Your task to perform on an android device: Add bose quietcomfort 35 to the cart on bestbuy, then select checkout. Image 0: 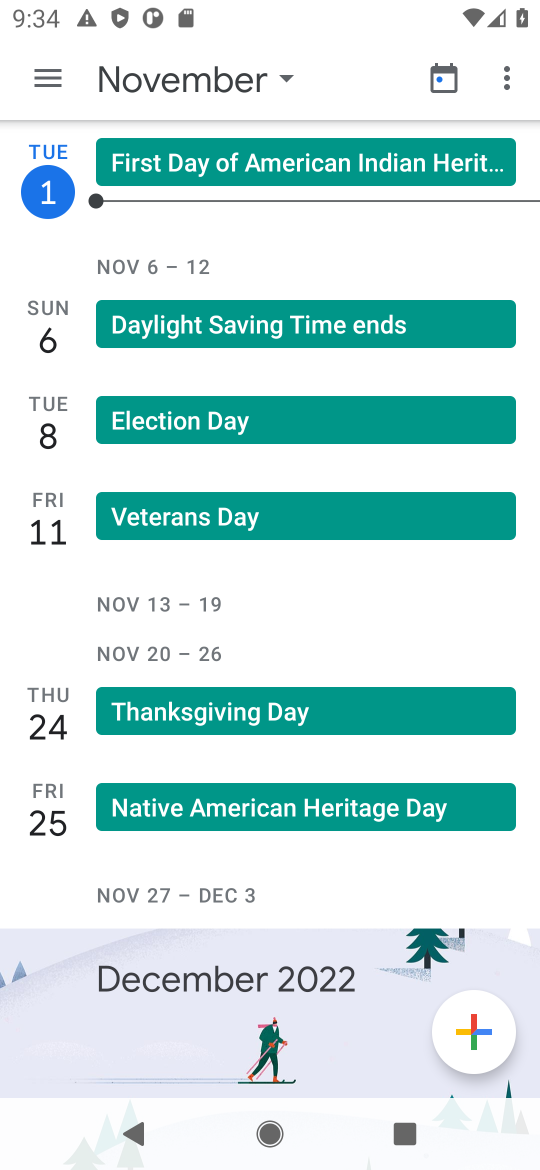
Step 0: press home button
Your task to perform on an android device: Add bose quietcomfort 35 to the cart on bestbuy, then select checkout. Image 1: 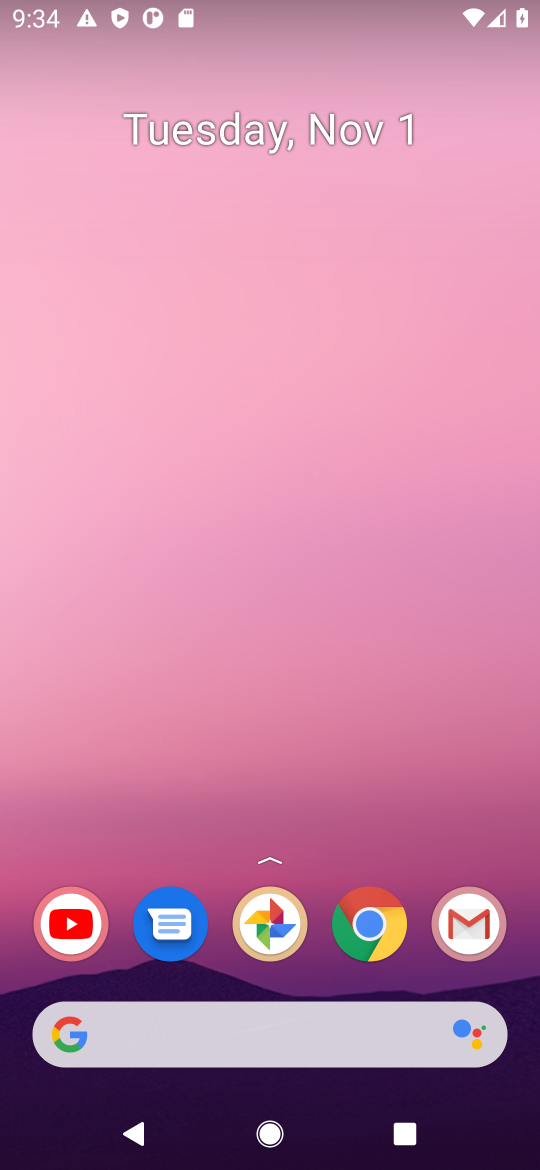
Step 1: click (362, 935)
Your task to perform on an android device: Add bose quietcomfort 35 to the cart on bestbuy, then select checkout. Image 2: 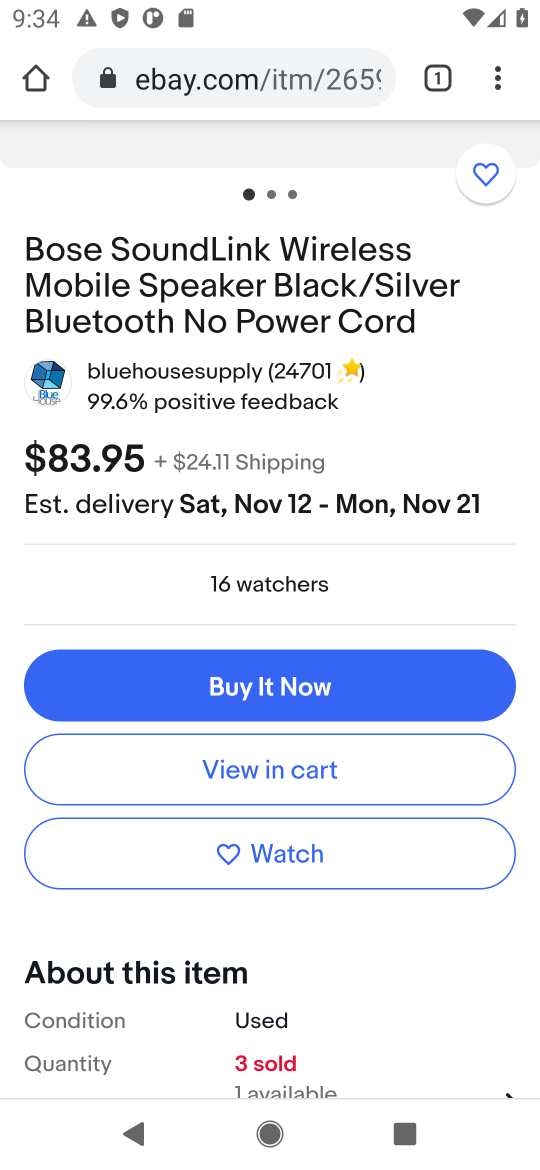
Step 2: click (257, 74)
Your task to perform on an android device: Add bose quietcomfort 35 to the cart on bestbuy, then select checkout. Image 3: 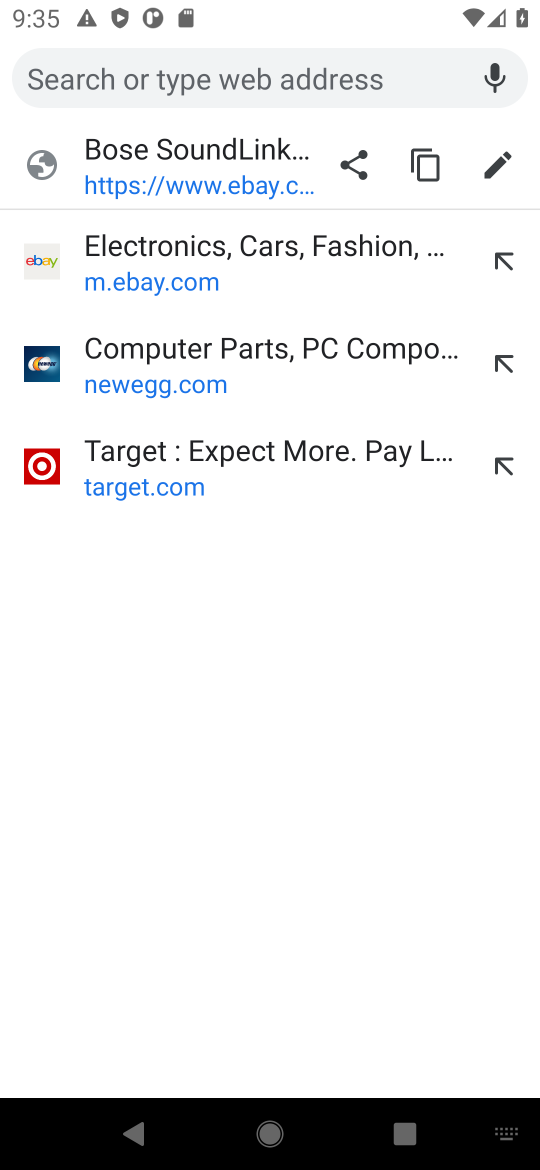
Step 3: type "bestbuy"
Your task to perform on an android device: Add bose quietcomfort 35 to the cart on bestbuy, then select checkout. Image 4: 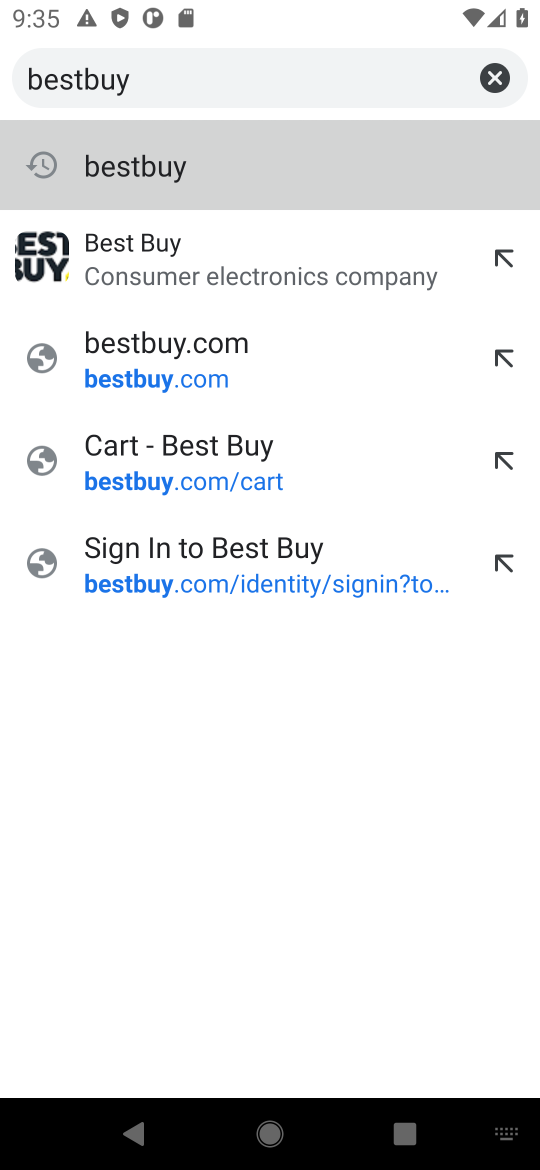
Step 4: click (129, 178)
Your task to perform on an android device: Add bose quietcomfort 35 to the cart on bestbuy, then select checkout. Image 5: 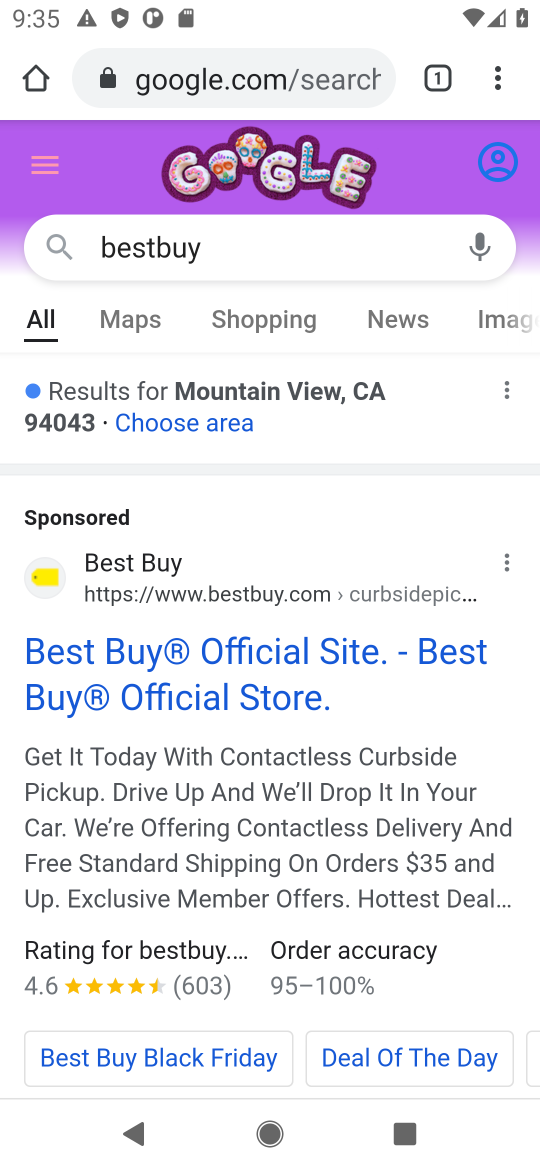
Step 5: click (158, 668)
Your task to perform on an android device: Add bose quietcomfort 35 to the cart on bestbuy, then select checkout. Image 6: 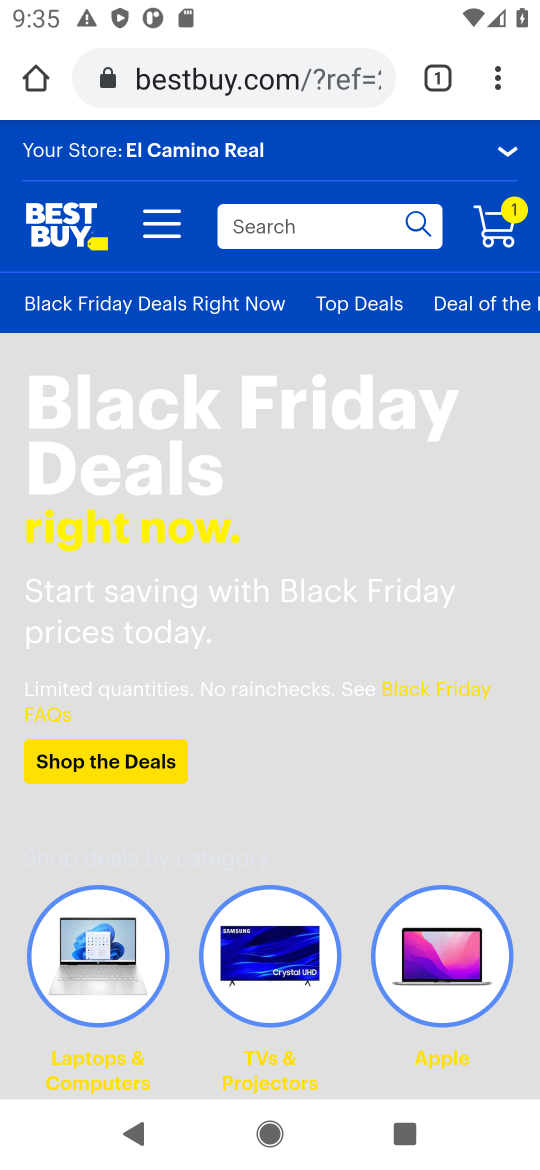
Step 6: click (338, 222)
Your task to perform on an android device: Add bose quietcomfort 35 to the cart on bestbuy, then select checkout. Image 7: 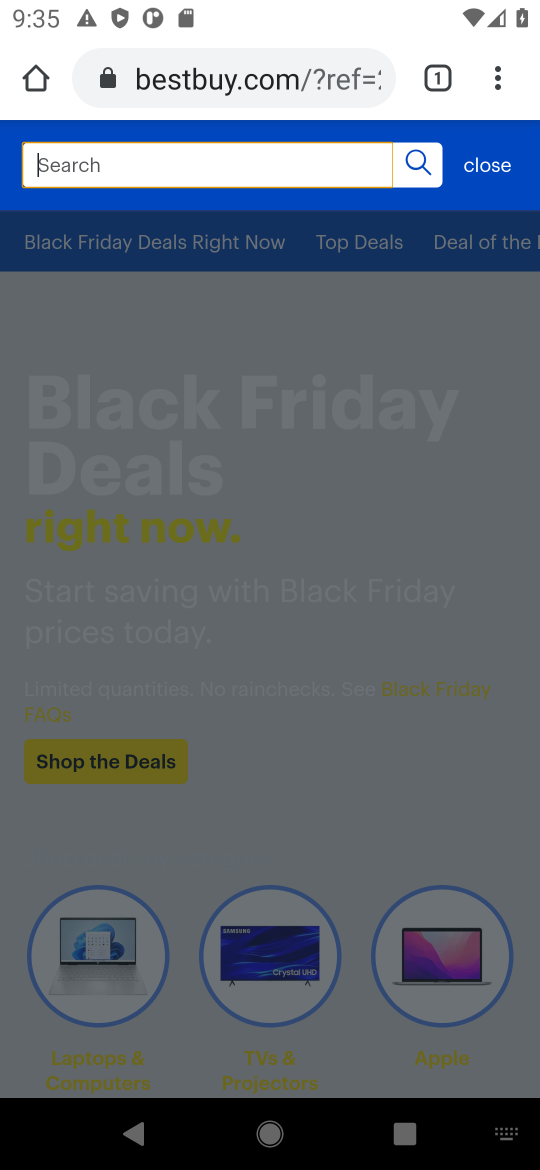
Step 7: type "bose quietcomfort 35 "
Your task to perform on an android device: Add bose quietcomfort 35 to the cart on bestbuy, then select checkout. Image 8: 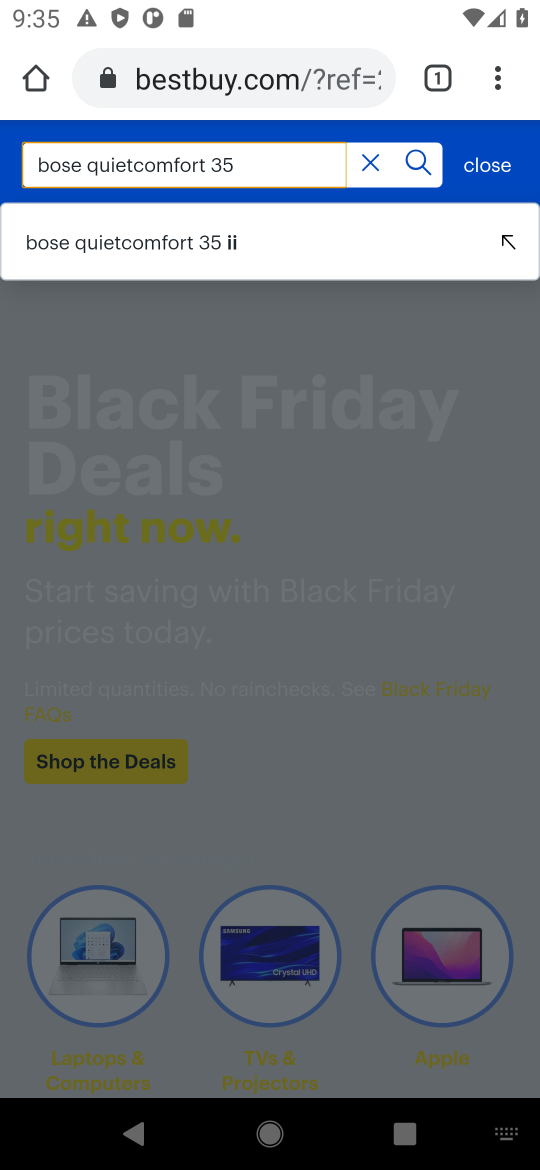
Step 8: press enter
Your task to perform on an android device: Add bose quietcomfort 35 to the cart on bestbuy, then select checkout. Image 9: 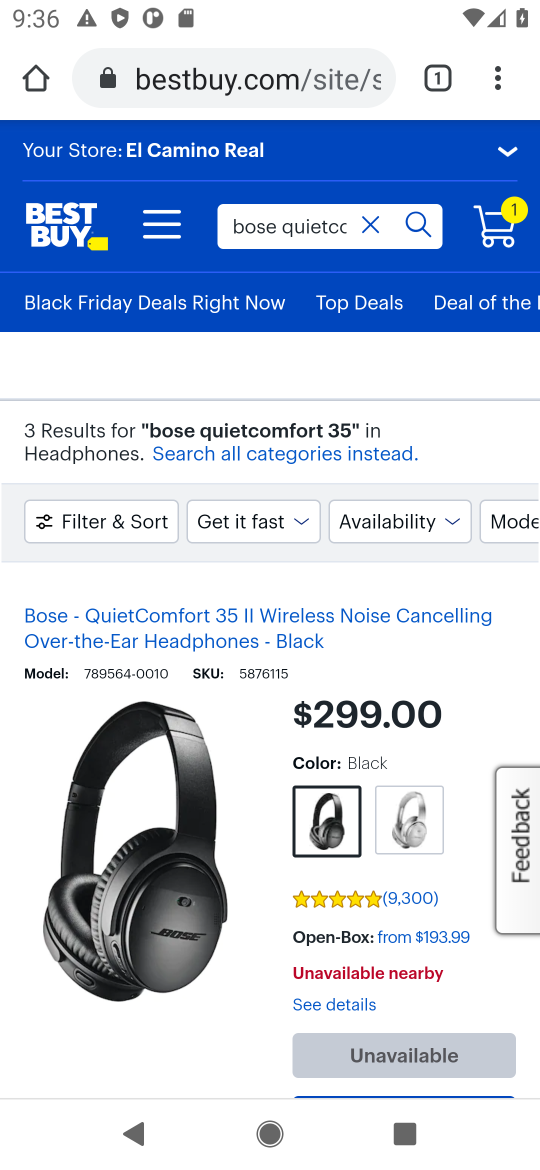
Step 9: task complete